Your task to perform on an android device: open chrome and create a bookmark for the current page Image 0: 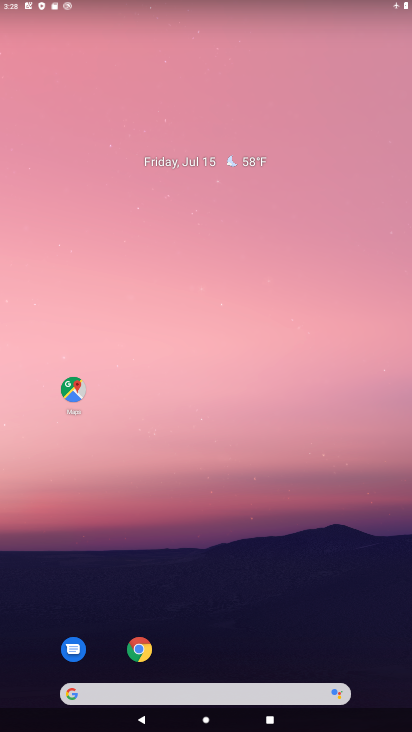
Step 0: click (144, 649)
Your task to perform on an android device: open chrome and create a bookmark for the current page Image 1: 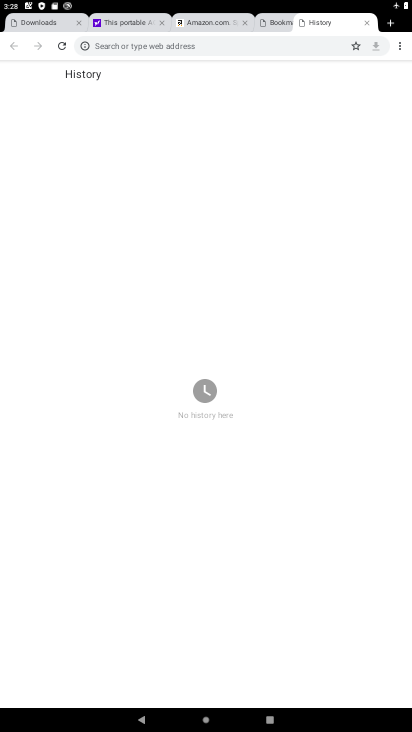
Step 1: click (355, 44)
Your task to perform on an android device: open chrome and create a bookmark for the current page Image 2: 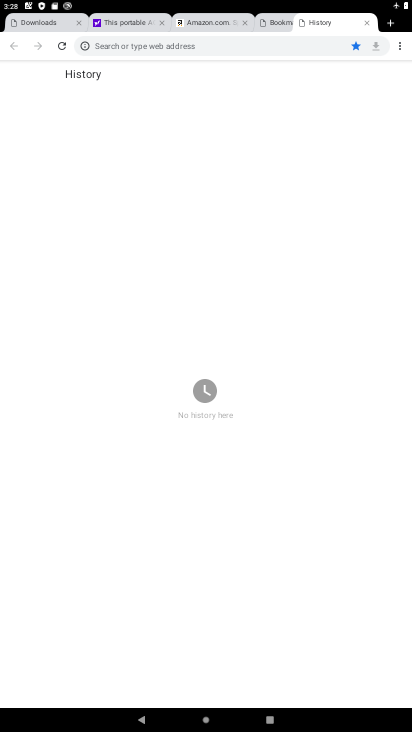
Step 2: task complete